Your task to perform on an android device: Go to ESPN.com Image 0: 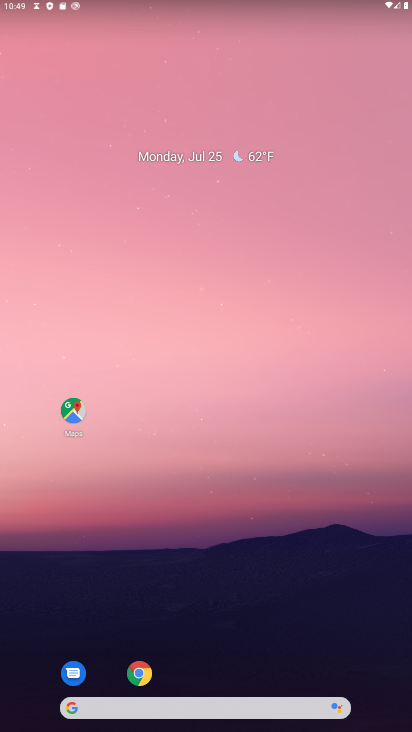
Step 0: press home button
Your task to perform on an android device: Go to ESPN.com Image 1: 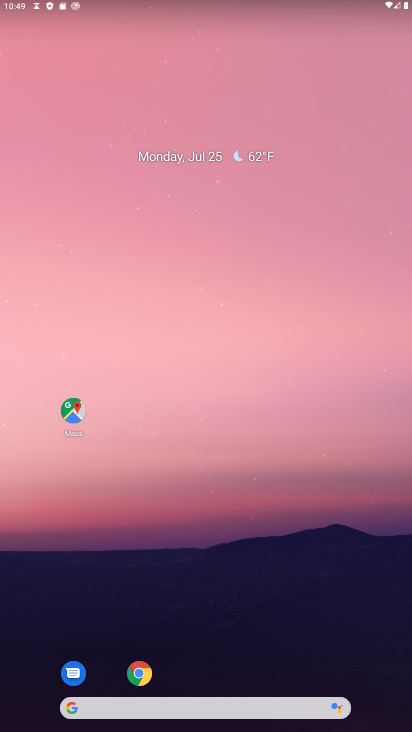
Step 1: click (69, 707)
Your task to perform on an android device: Go to ESPN.com Image 2: 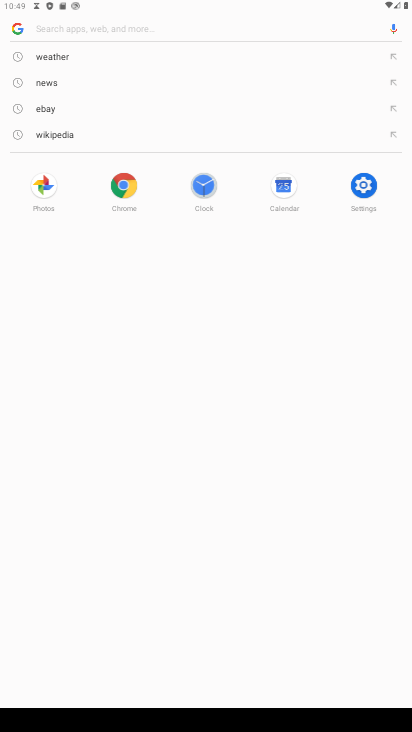
Step 2: type "ESPN.com"
Your task to perform on an android device: Go to ESPN.com Image 3: 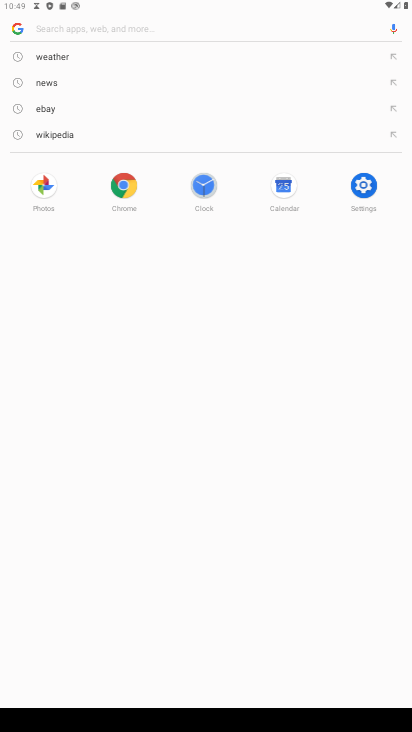
Step 3: click (61, 25)
Your task to perform on an android device: Go to ESPN.com Image 4: 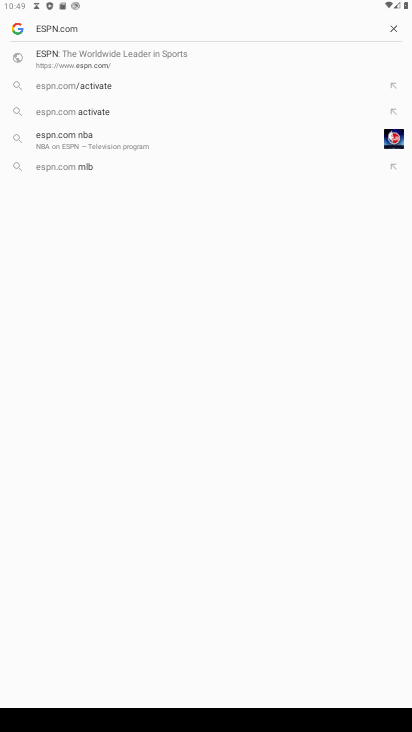
Step 4: press enter
Your task to perform on an android device: Go to ESPN.com Image 5: 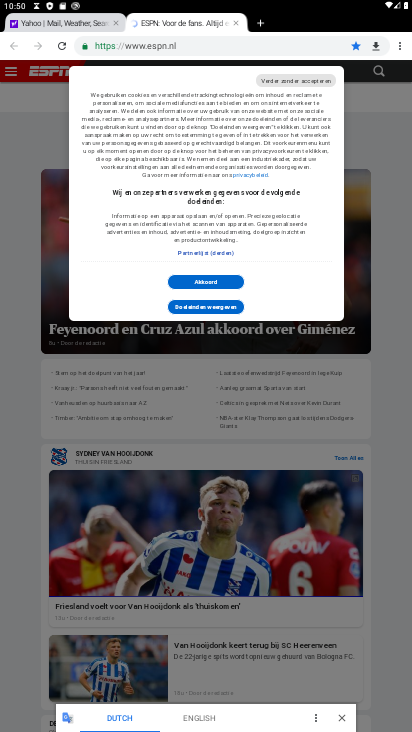
Step 5: click (232, 280)
Your task to perform on an android device: Go to ESPN.com Image 6: 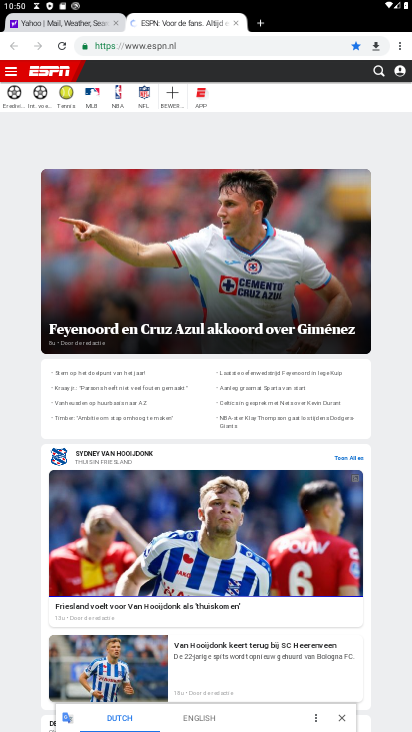
Step 6: task complete